Your task to perform on an android device: see sites visited before in the chrome app Image 0: 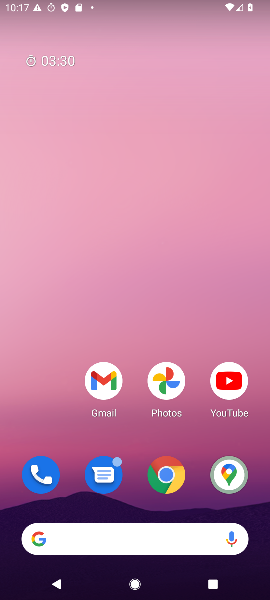
Step 0: click (169, 475)
Your task to perform on an android device: see sites visited before in the chrome app Image 1: 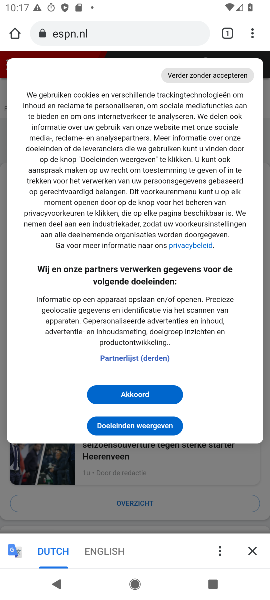
Step 1: click (246, 32)
Your task to perform on an android device: see sites visited before in the chrome app Image 2: 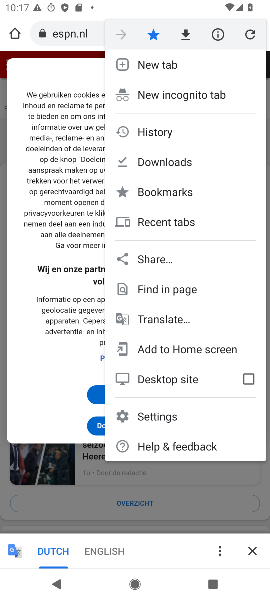
Step 2: click (172, 134)
Your task to perform on an android device: see sites visited before in the chrome app Image 3: 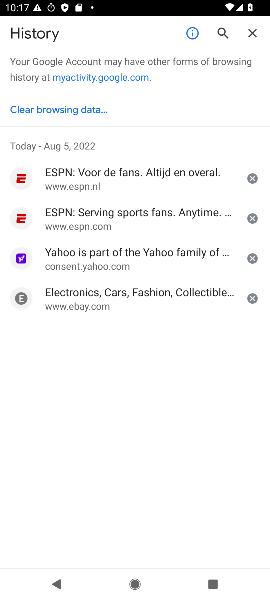
Step 3: task complete